Your task to perform on an android device: turn off location Image 0: 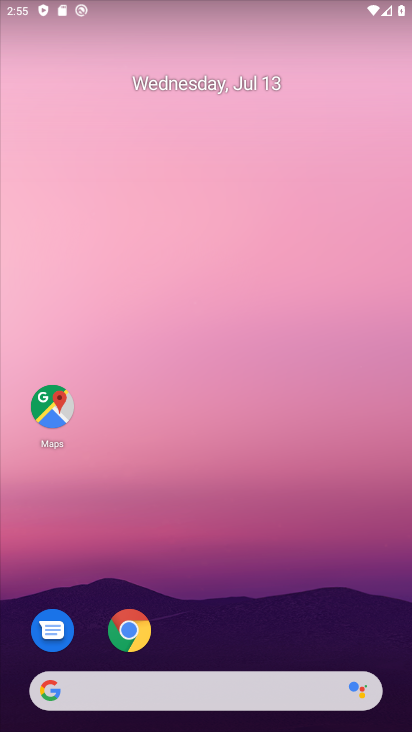
Step 0: click (188, 327)
Your task to perform on an android device: turn off location Image 1: 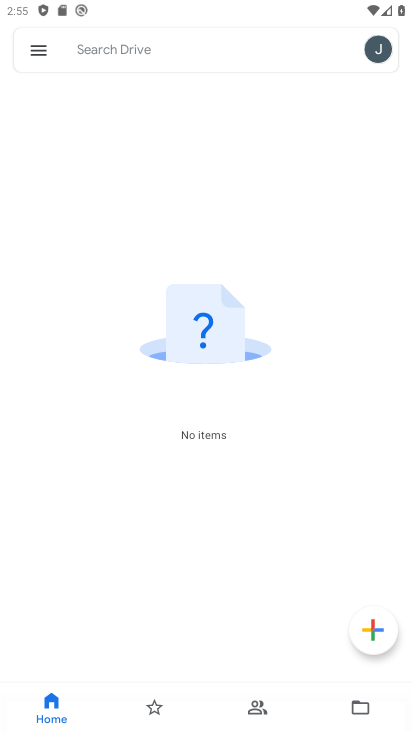
Step 1: press home button
Your task to perform on an android device: turn off location Image 2: 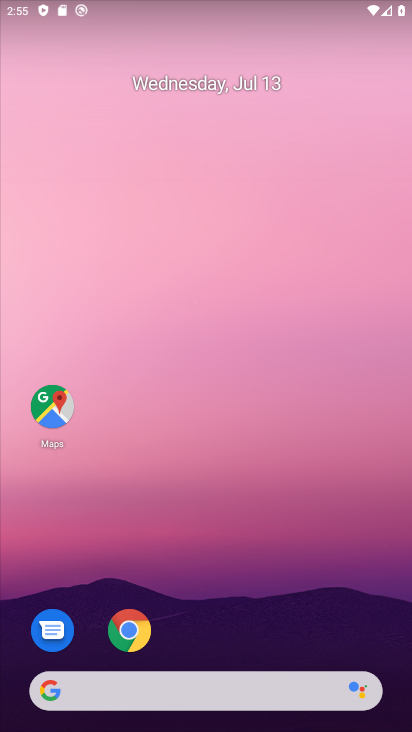
Step 2: drag from (192, 439) to (186, 226)
Your task to perform on an android device: turn off location Image 3: 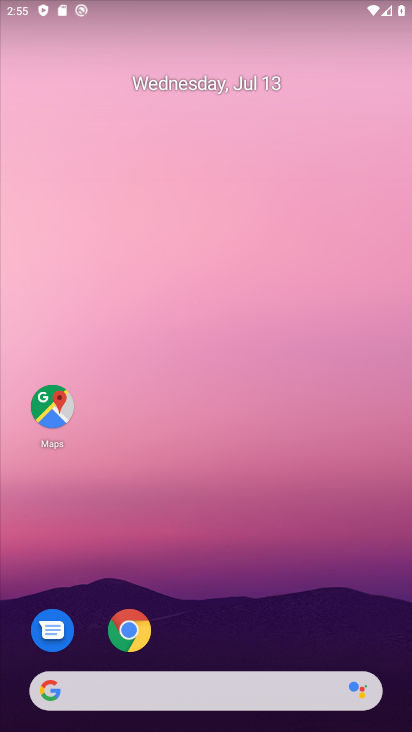
Step 3: drag from (216, 675) to (215, 225)
Your task to perform on an android device: turn off location Image 4: 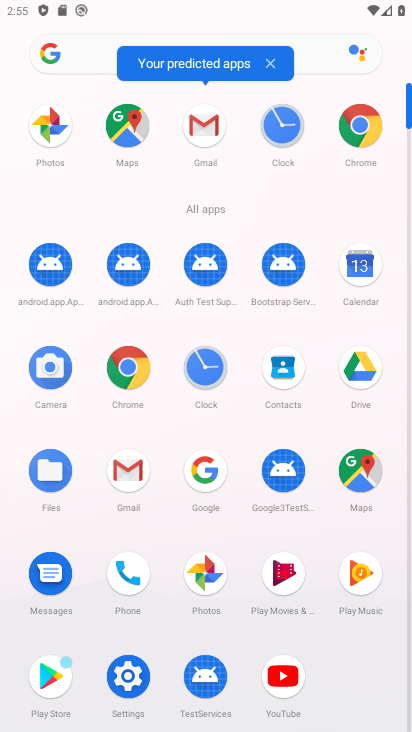
Step 4: click (128, 673)
Your task to perform on an android device: turn off location Image 5: 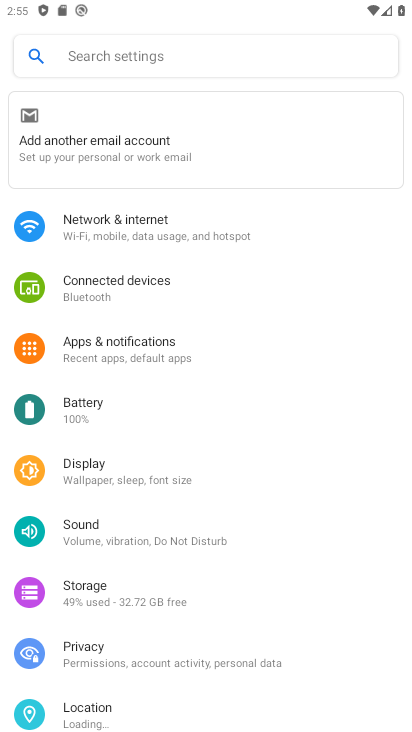
Step 5: click (95, 706)
Your task to perform on an android device: turn off location Image 6: 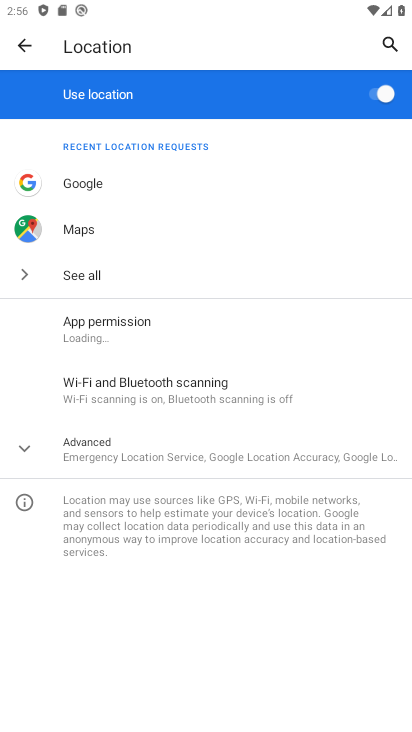
Step 6: click (374, 96)
Your task to perform on an android device: turn off location Image 7: 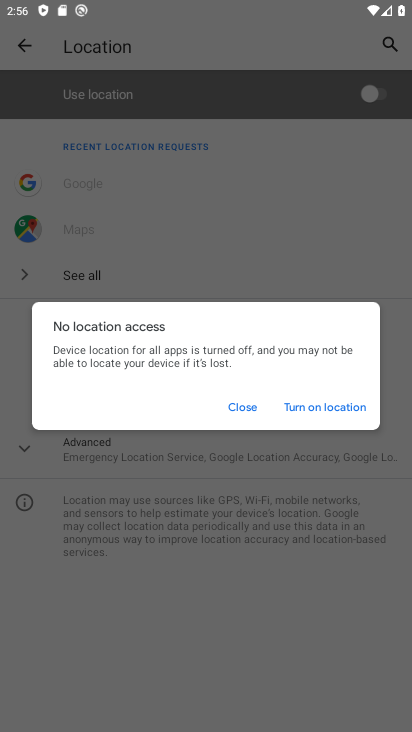
Step 7: click (251, 408)
Your task to perform on an android device: turn off location Image 8: 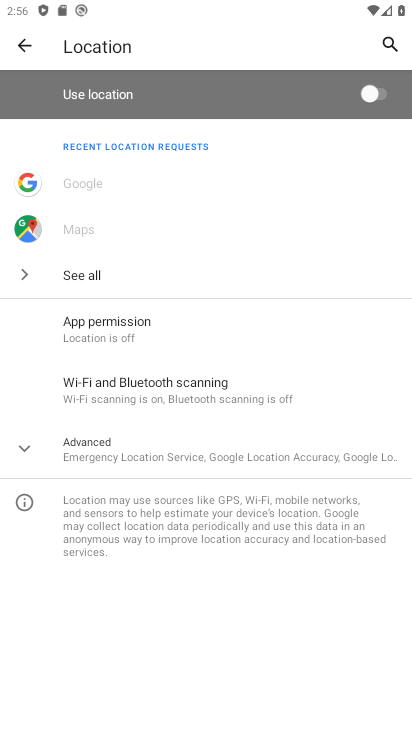
Step 8: task complete